Your task to perform on an android device: change notifications settings Image 0: 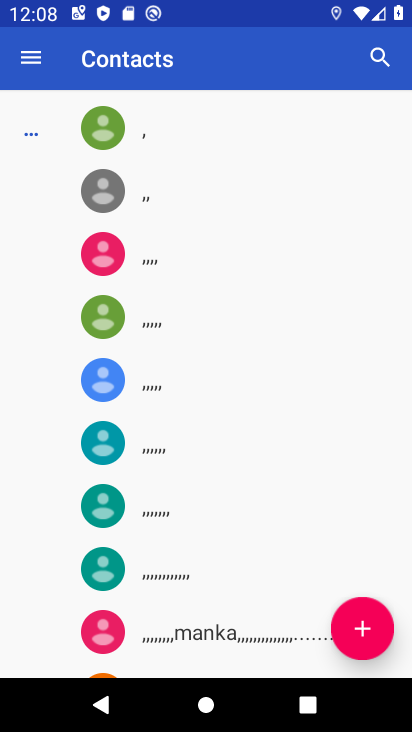
Step 0: press home button
Your task to perform on an android device: change notifications settings Image 1: 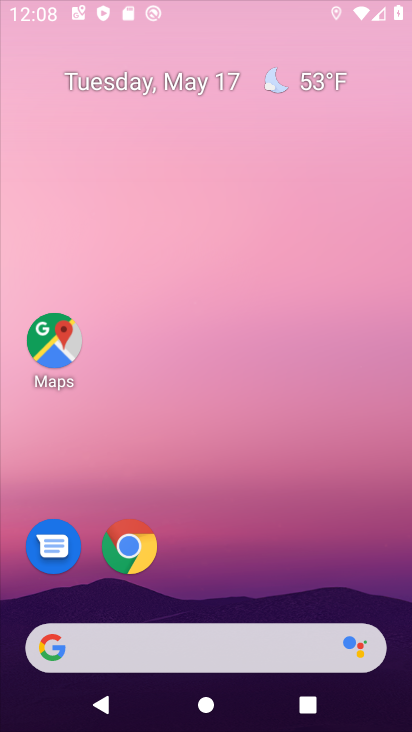
Step 1: drag from (203, 565) to (259, 68)
Your task to perform on an android device: change notifications settings Image 2: 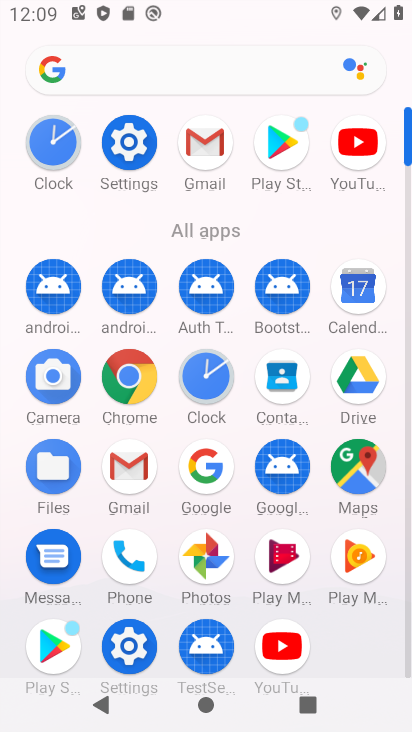
Step 2: click (129, 139)
Your task to perform on an android device: change notifications settings Image 3: 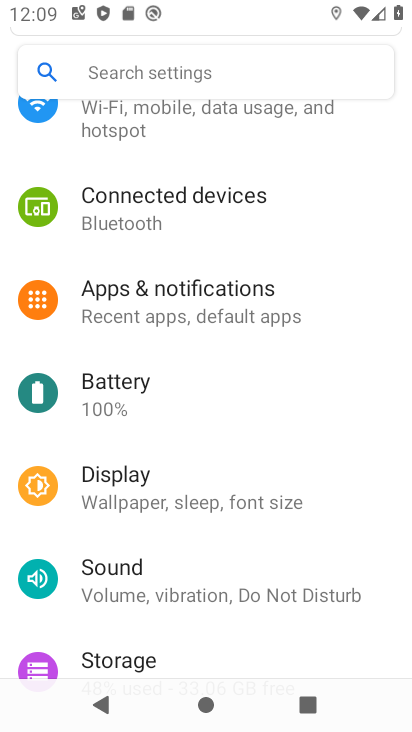
Step 3: click (157, 309)
Your task to perform on an android device: change notifications settings Image 4: 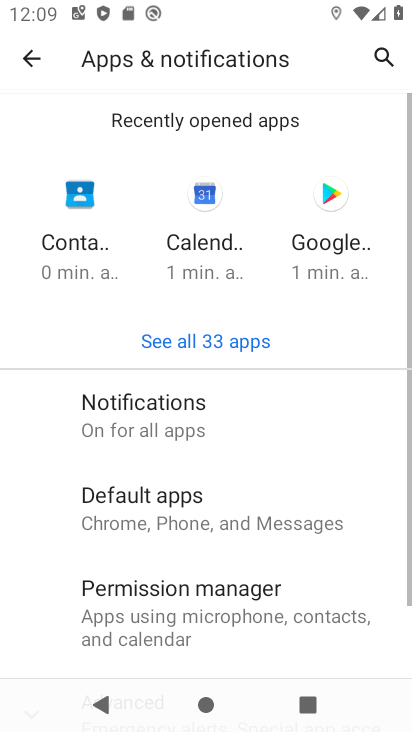
Step 4: click (180, 418)
Your task to perform on an android device: change notifications settings Image 5: 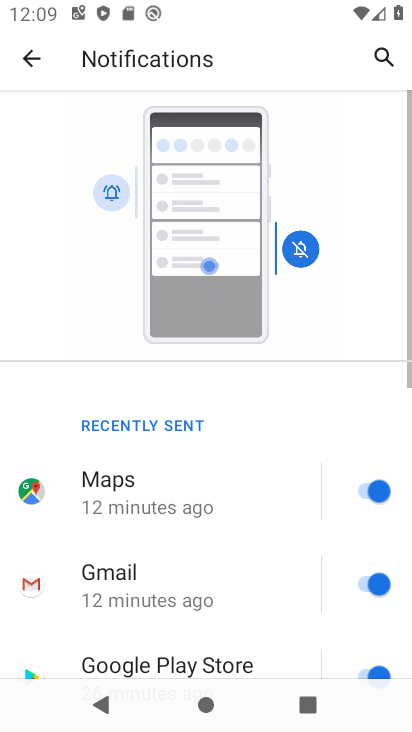
Step 5: drag from (246, 559) to (262, 58)
Your task to perform on an android device: change notifications settings Image 6: 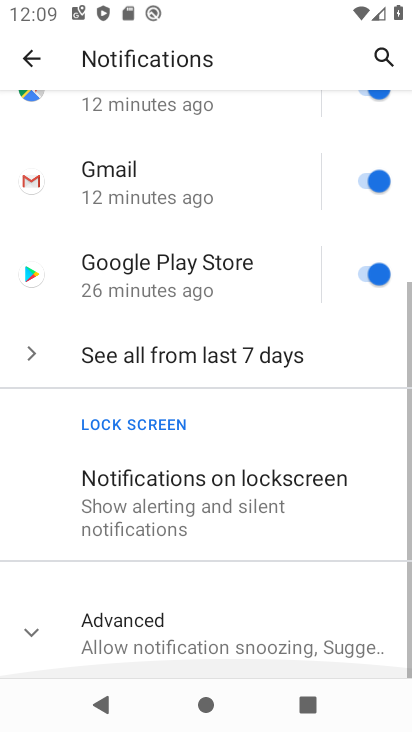
Step 6: drag from (239, 523) to (243, 222)
Your task to perform on an android device: change notifications settings Image 7: 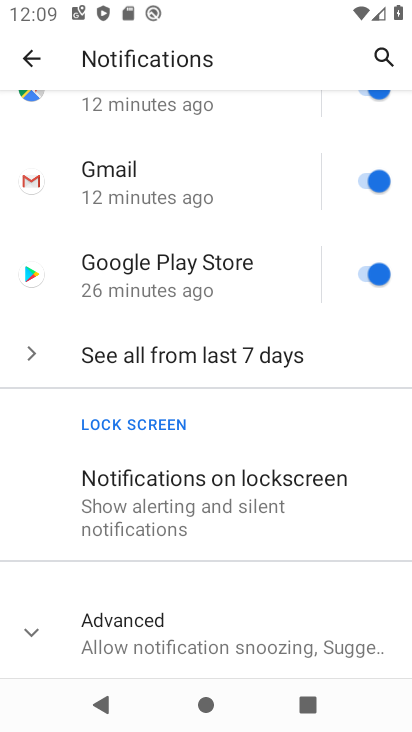
Step 7: click (165, 642)
Your task to perform on an android device: change notifications settings Image 8: 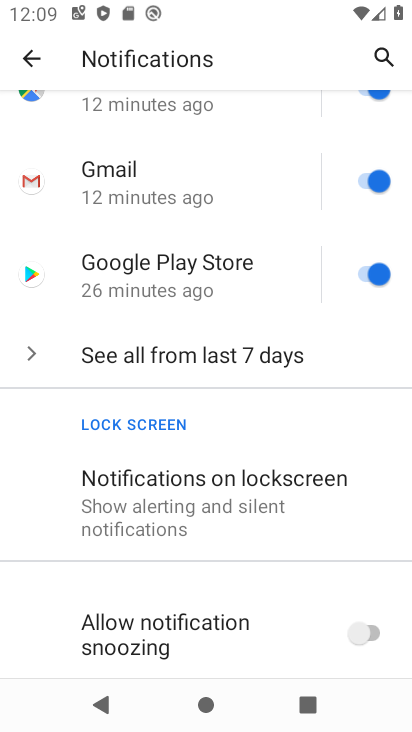
Step 8: drag from (280, 581) to (353, 420)
Your task to perform on an android device: change notifications settings Image 9: 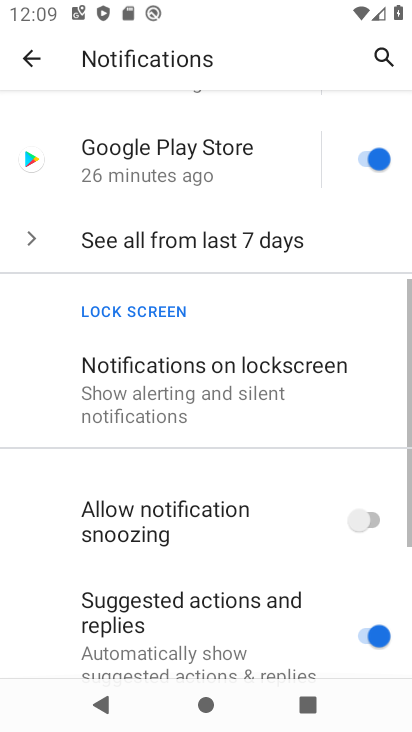
Step 9: click (379, 532)
Your task to perform on an android device: change notifications settings Image 10: 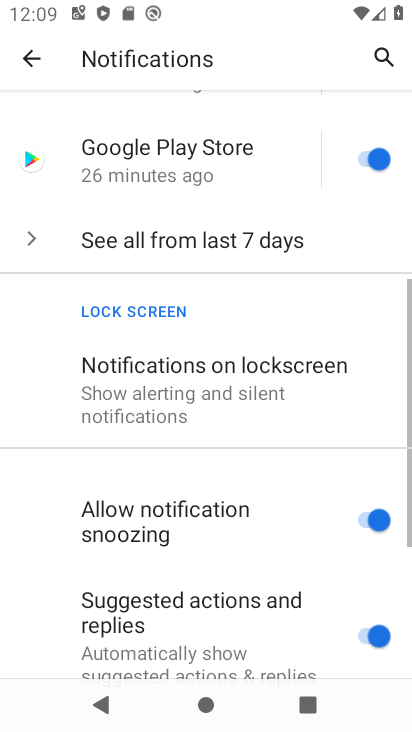
Step 10: click (380, 616)
Your task to perform on an android device: change notifications settings Image 11: 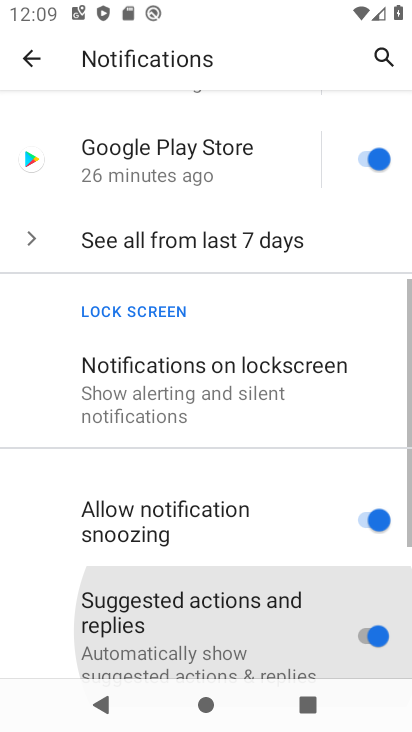
Step 11: drag from (309, 551) to (303, 263)
Your task to perform on an android device: change notifications settings Image 12: 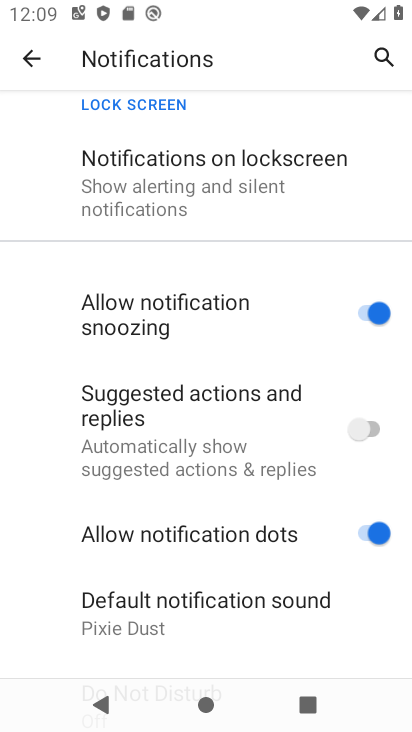
Step 12: click (365, 539)
Your task to perform on an android device: change notifications settings Image 13: 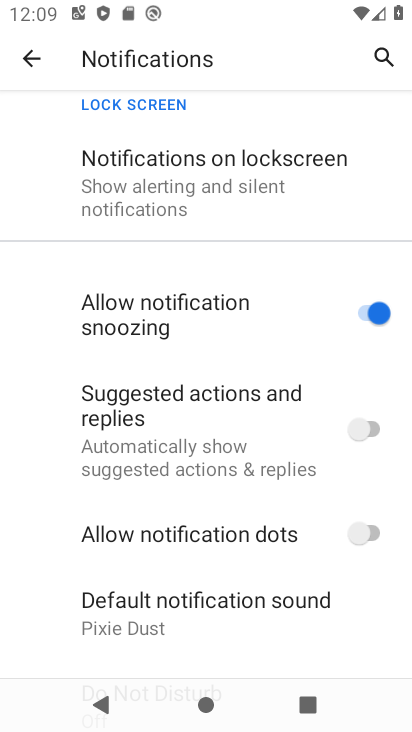
Step 13: task complete